Your task to perform on an android device: Empty the shopping cart on target. Add acer predator to the cart on target Image 0: 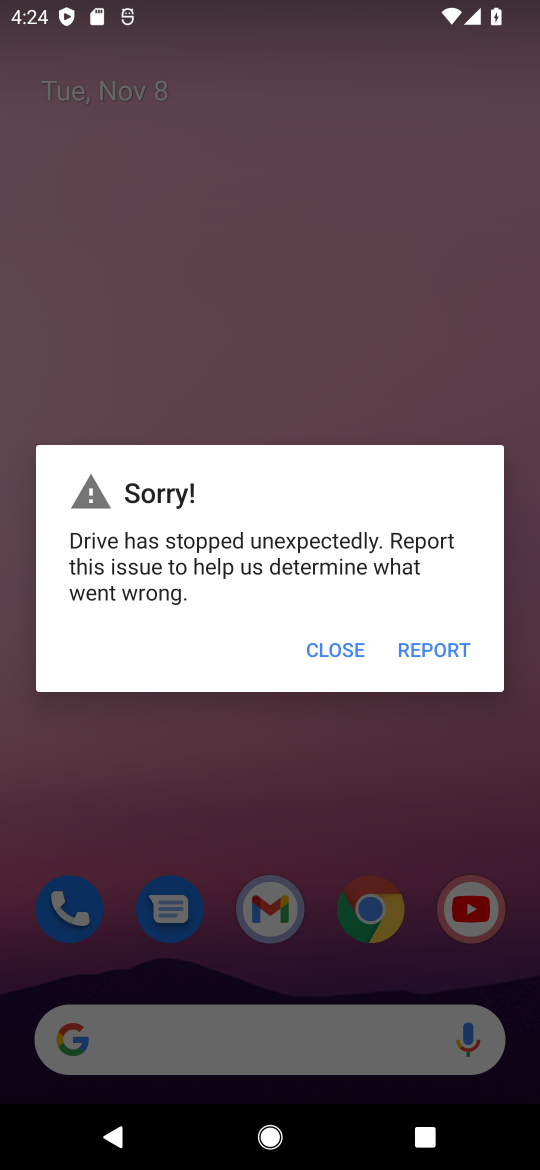
Step 0: press home button
Your task to perform on an android device: Empty the shopping cart on target. Add acer predator to the cart on target Image 1: 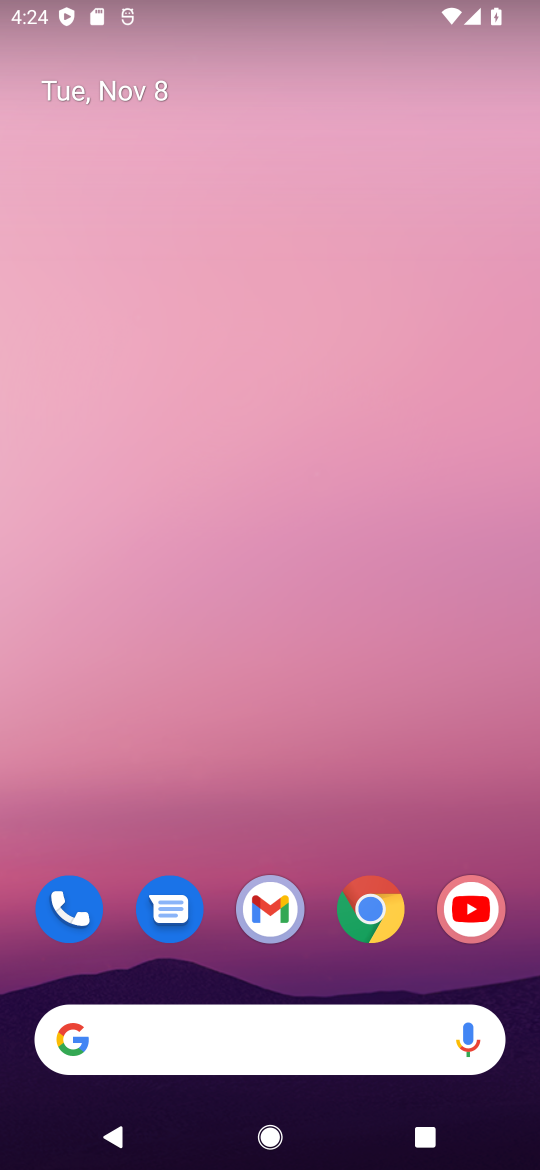
Step 1: click (369, 912)
Your task to perform on an android device: Empty the shopping cart on target. Add acer predator to the cart on target Image 2: 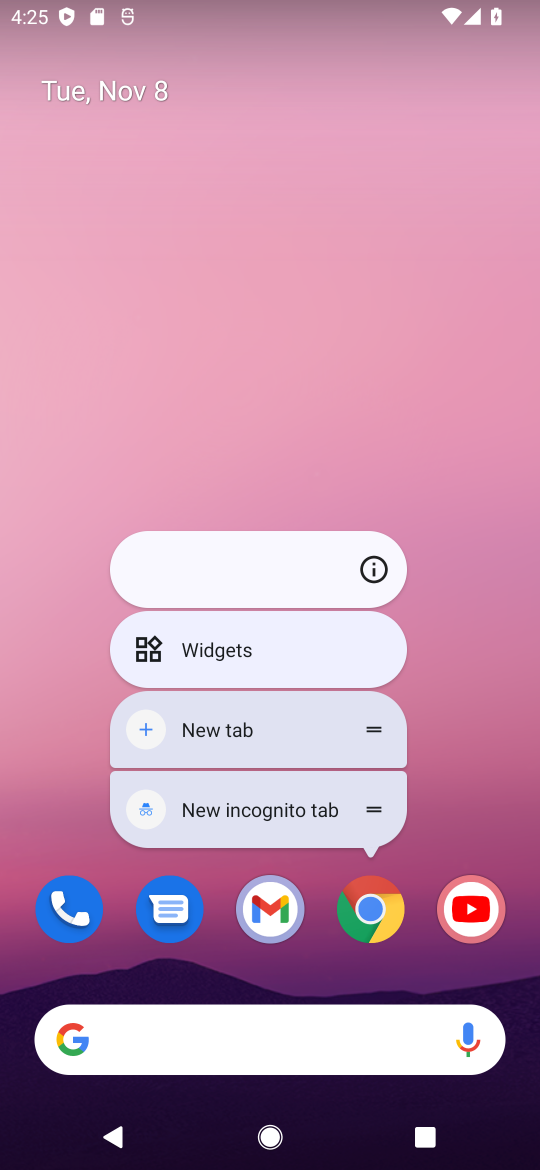
Step 2: click (372, 909)
Your task to perform on an android device: Empty the shopping cart on target. Add acer predator to the cart on target Image 3: 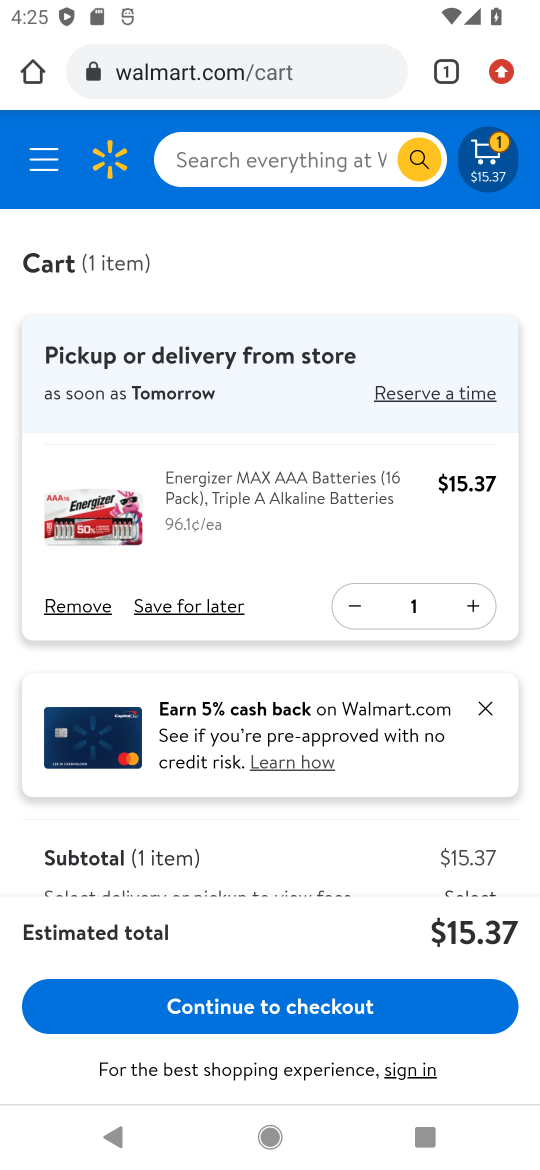
Step 3: click (253, 56)
Your task to perform on an android device: Empty the shopping cart on target. Add acer predator to the cart on target Image 4: 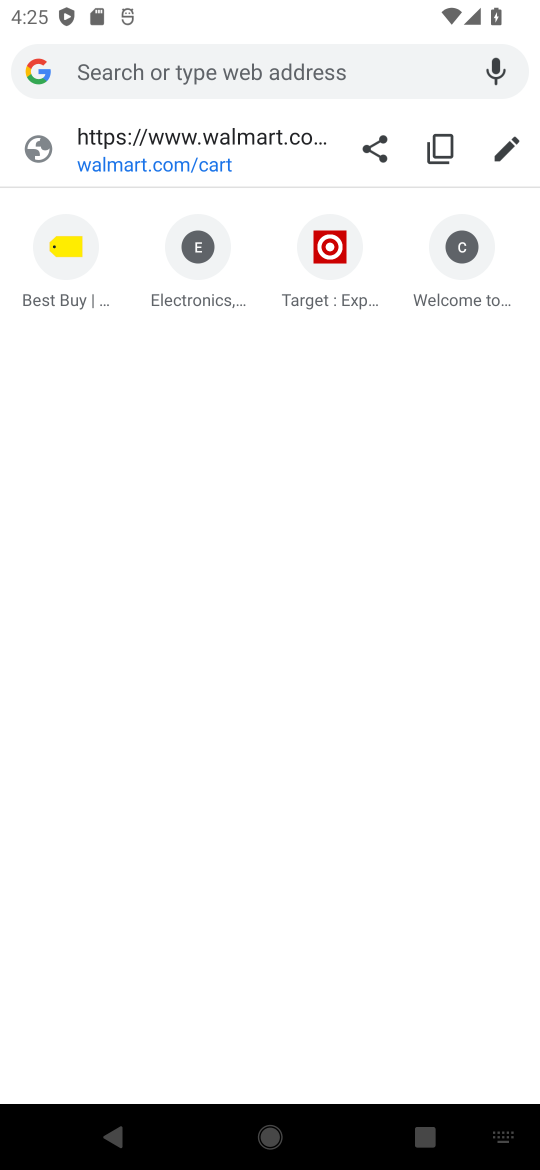
Step 4: click (335, 239)
Your task to perform on an android device: Empty the shopping cart on target. Add acer predator to the cart on target Image 5: 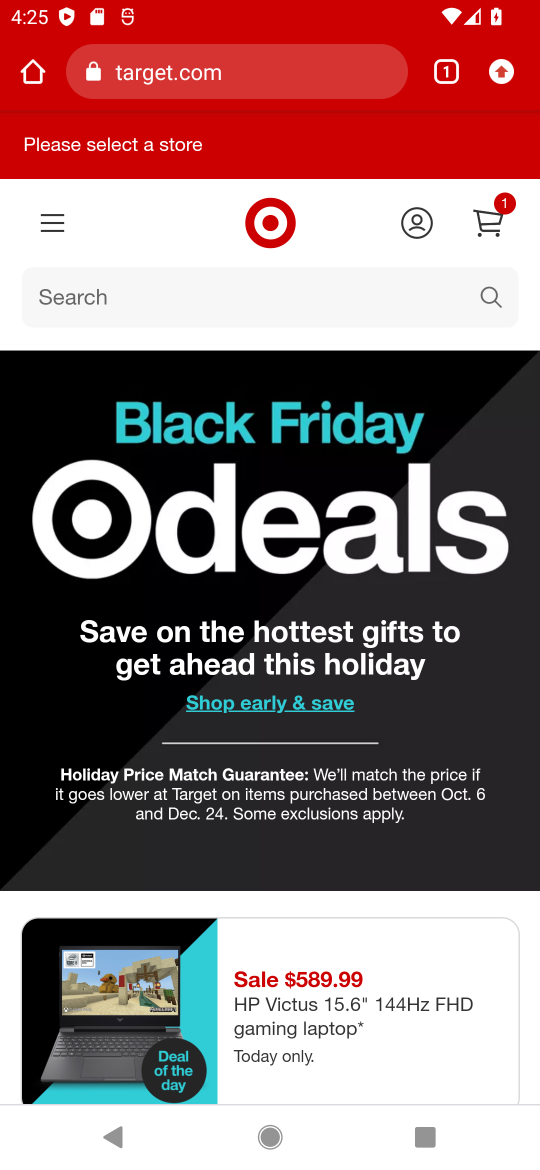
Step 5: click (194, 284)
Your task to perform on an android device: Empty the shopping cart on target. Add acer predator to the cart on target Image 6: 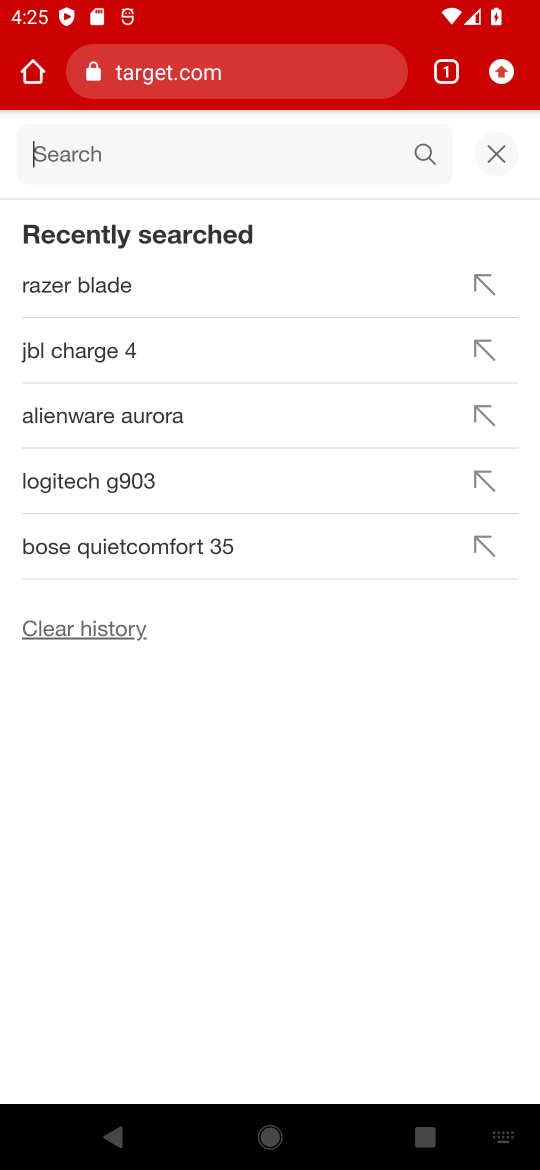
Step 6: type "acer predator"
Your task to perform on an android device: Empty the shopping cart on target. Add acer predator to the cart on target Image 7: 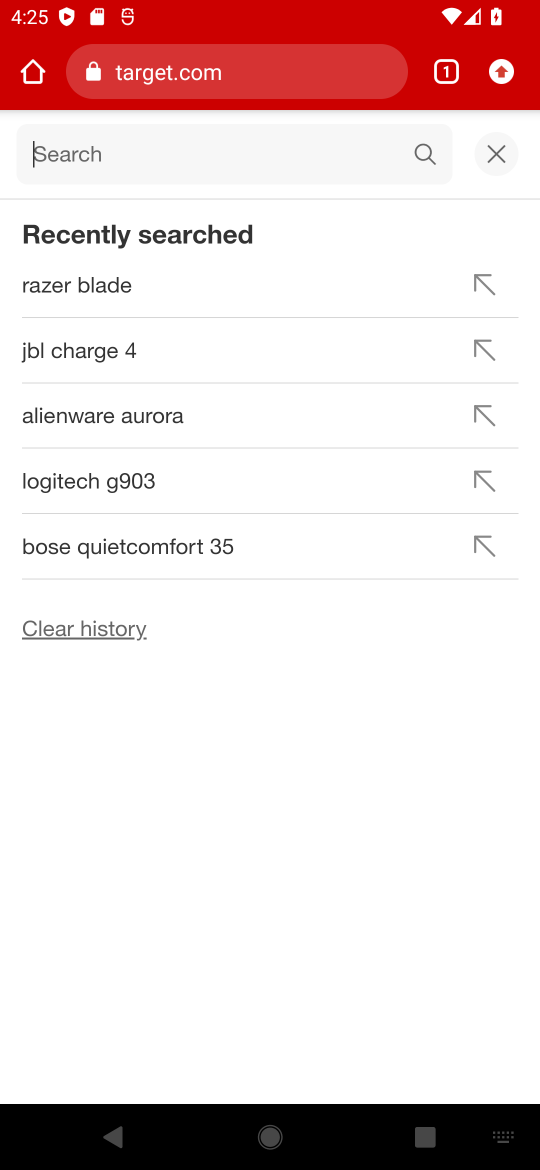
Step 7: press enter
Your task to perform on an android device: Empty the shopping cart on target. Add acer predator to the cart on target Image 8: 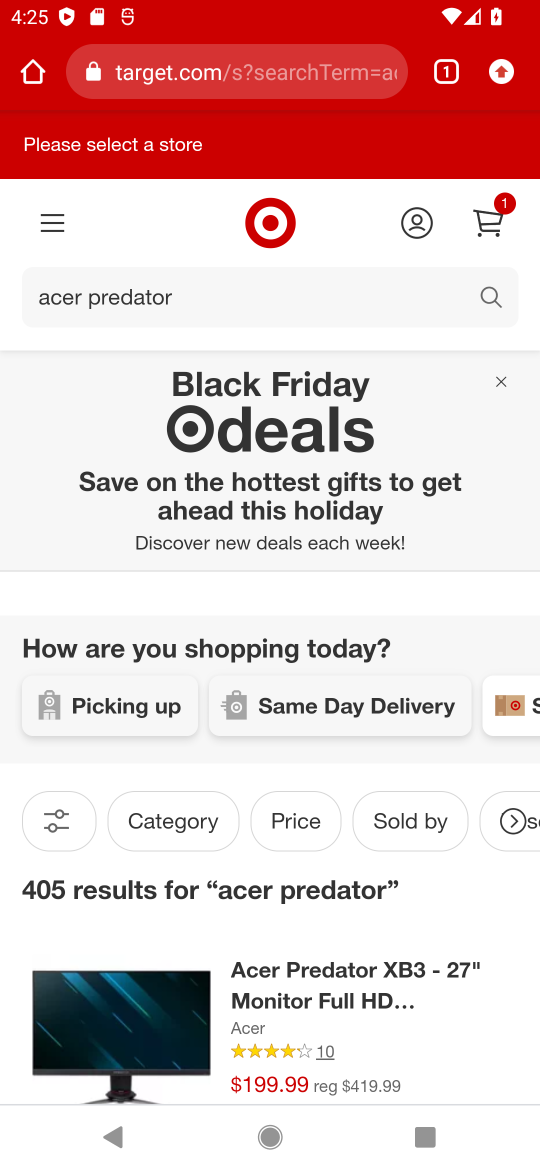
Step 8: drag from (268, 844) to (325, 594)
Your task to perform on an android device: Empty the shopping cart on target. Add acer predator to the cart on target Image 9: 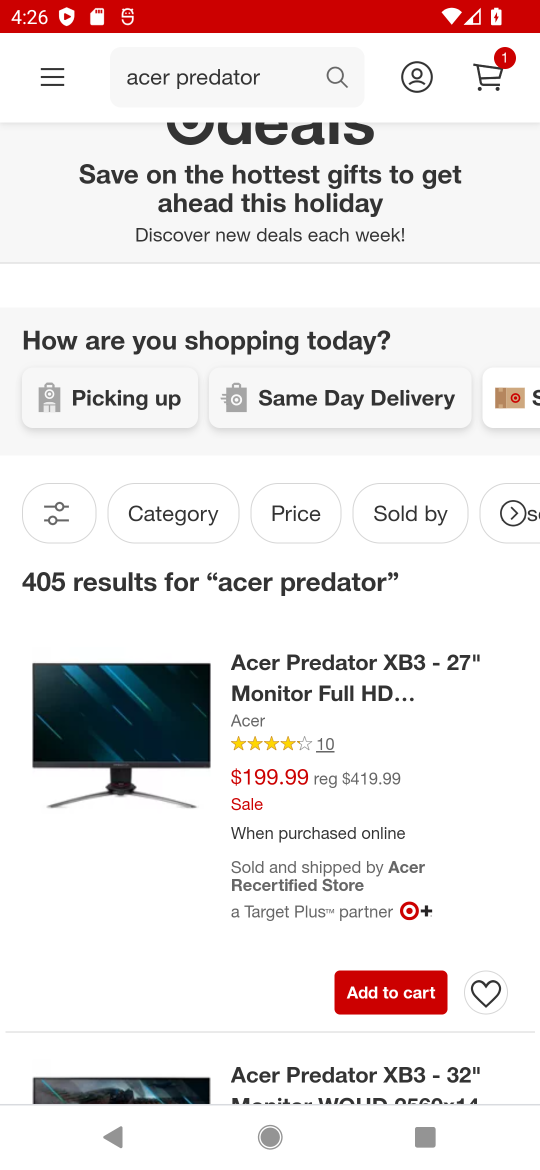
Step 9: click (390, 995)
Your task to perform on an android device: Empty the shopping cart on target. Add acer predator to the cart on target Image 10: 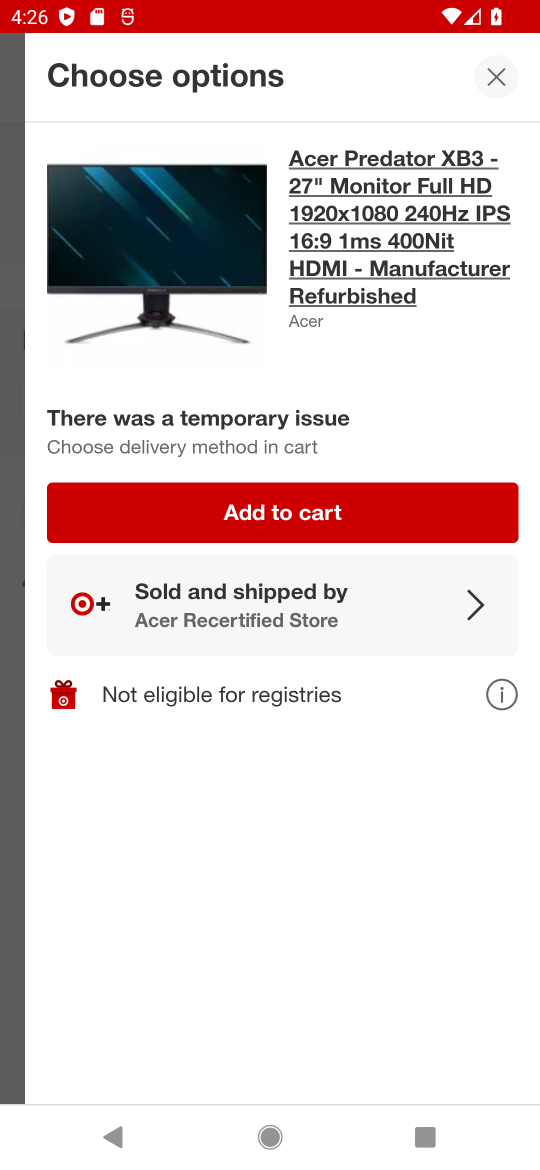
Step 10: click (315, 506)
Your task to perform on an android device: Empty the shopping cart on target. Add acer predator to the cart on target Image 11: 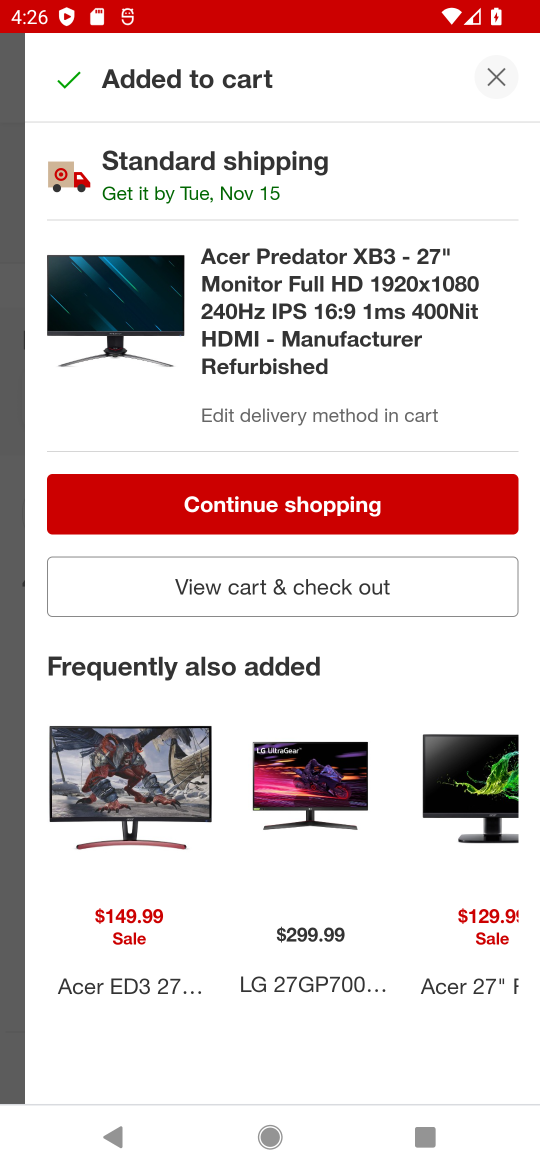
Step 11: click (493, 69)
Your task to perform on an android device: Empty the shopping cart on target. Add acer predator to the cart on target Image 12: 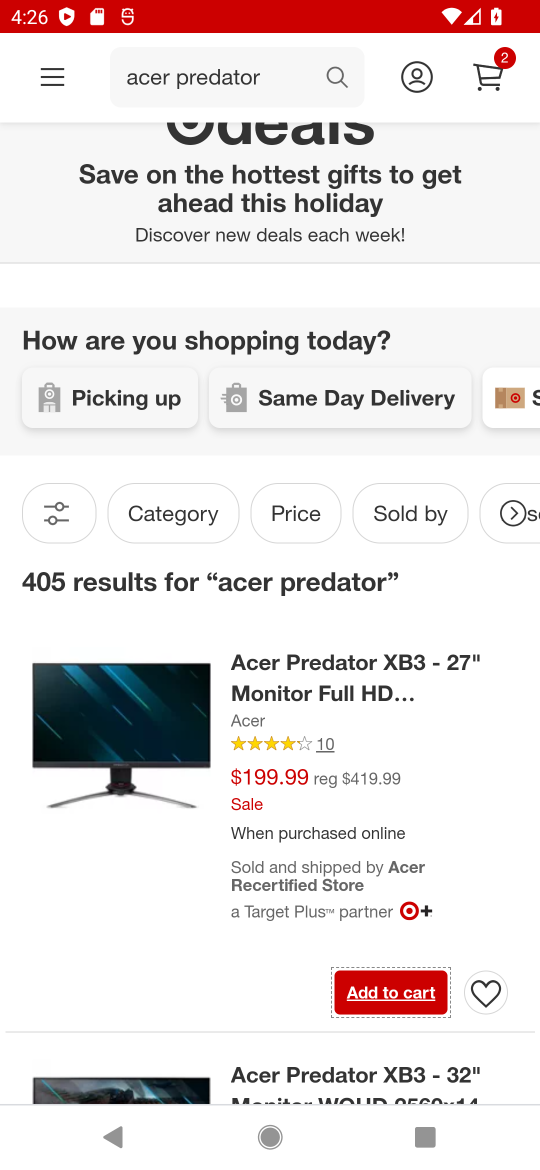
Step 12: click (499, 57)
Your task to perform on an android device: Empty the shopping cart on target. Add acer predator to the cart on target Image 13: 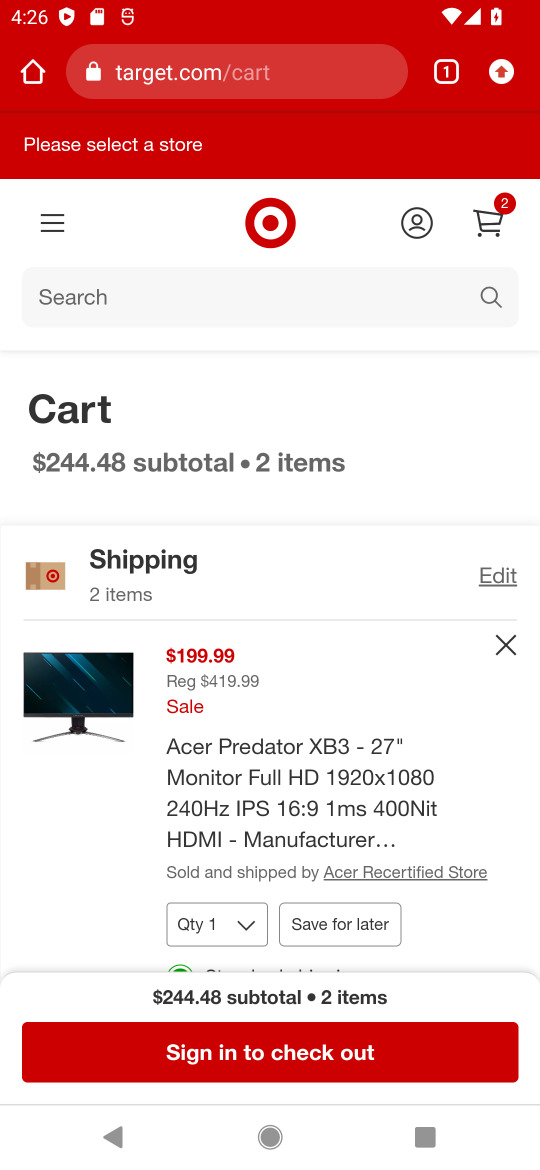
Step 13: task complete